Your task to perform on an android device: all mails in gmail Image 0: 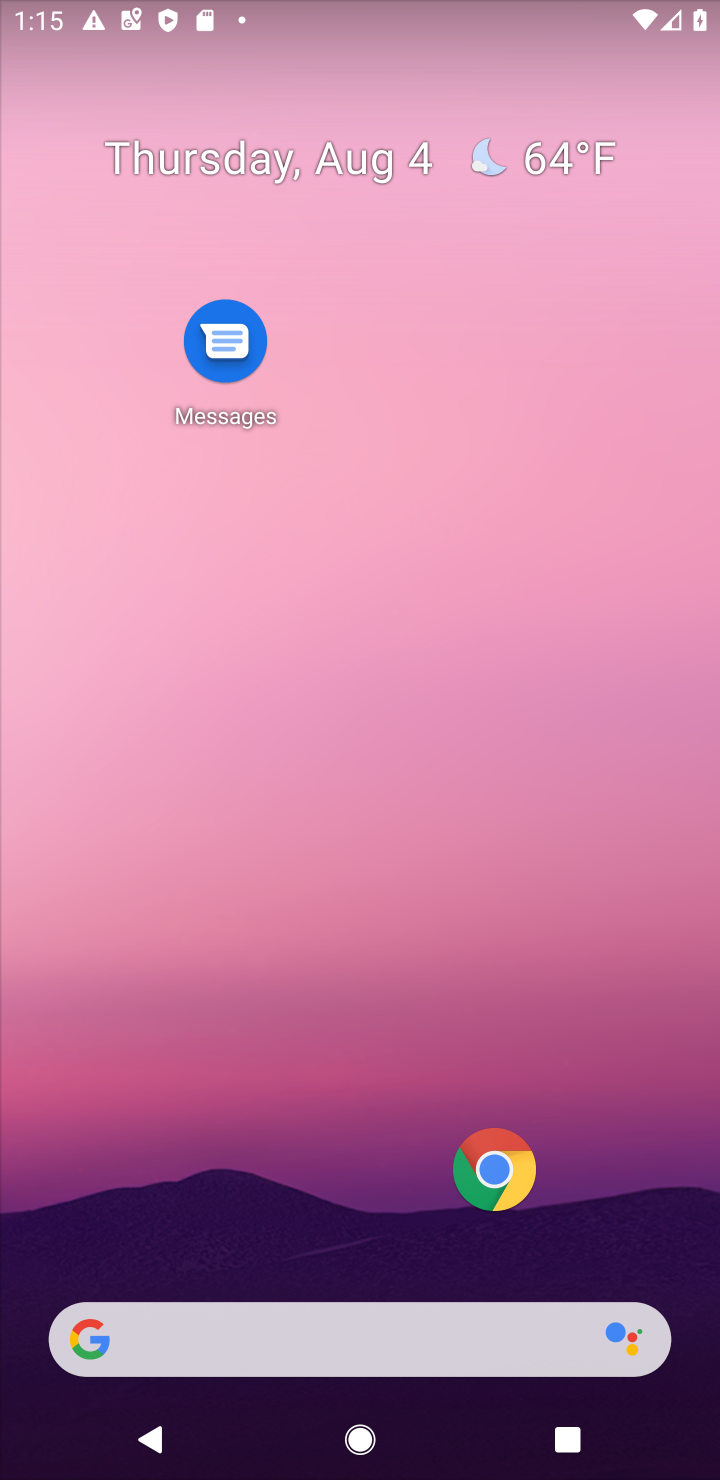
Step 0: drag from (349, 1135) to (330, 254)
Your task to perform on an android device: all mails in gmail Image 1: 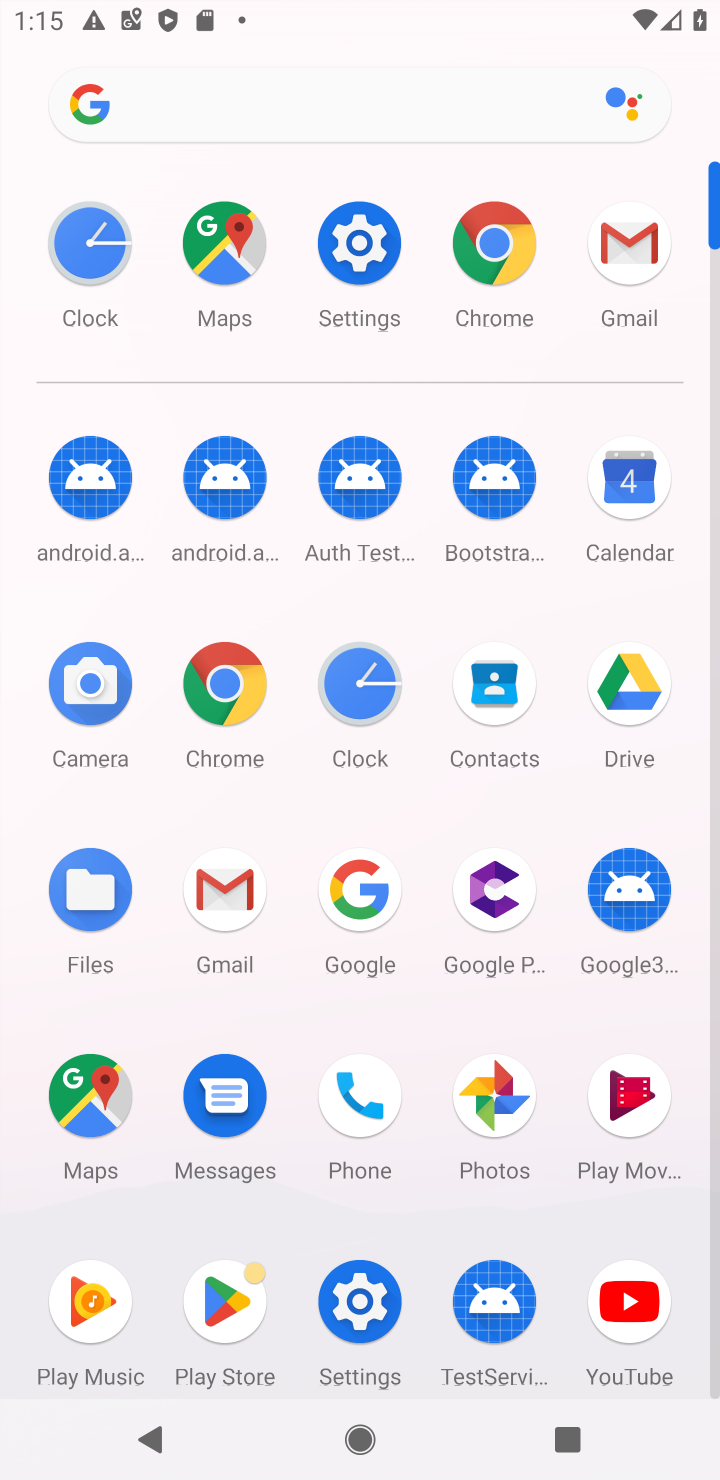
Step 1: click (618, 255)
Your task to perform on an android device: all mails in gmail Image 2: 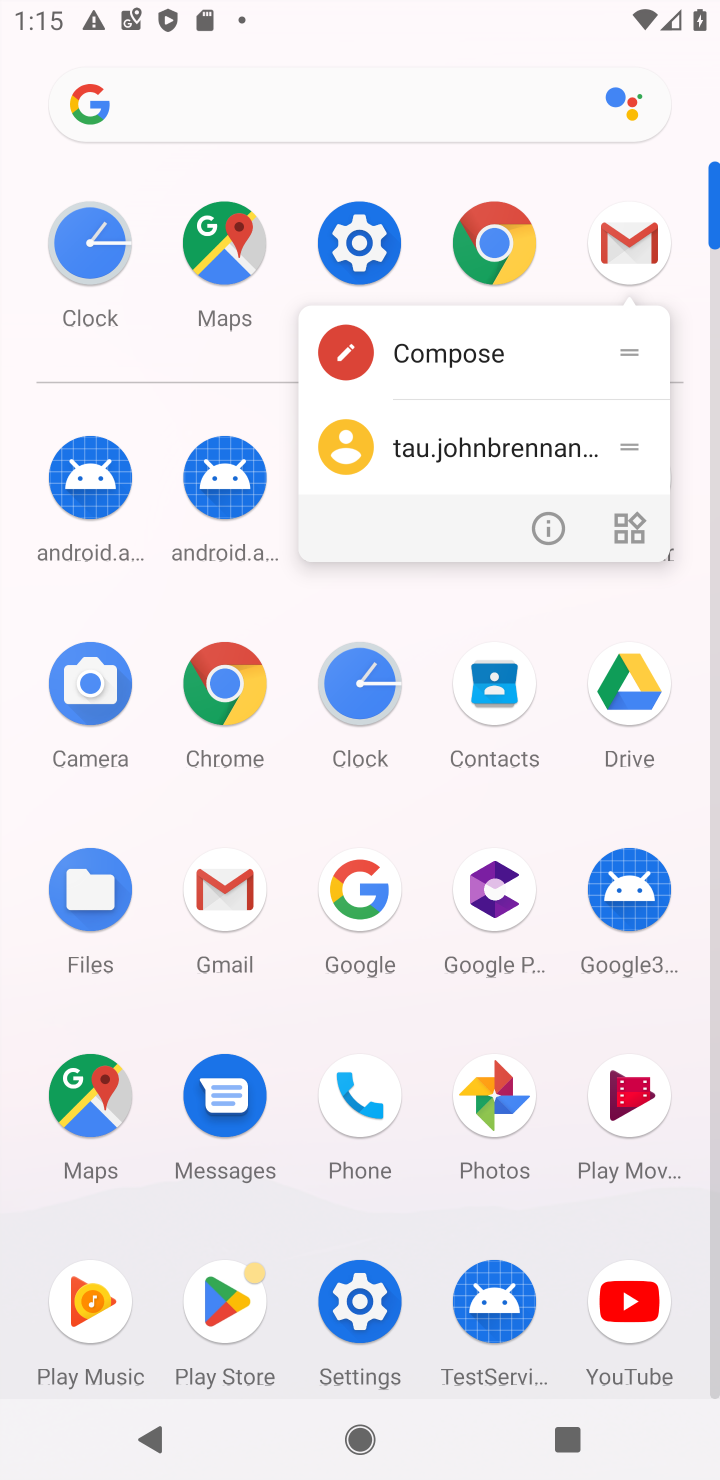
Step 2: click (608, 266)
Your task to perform on an android device: all mails in gmail Image 3: 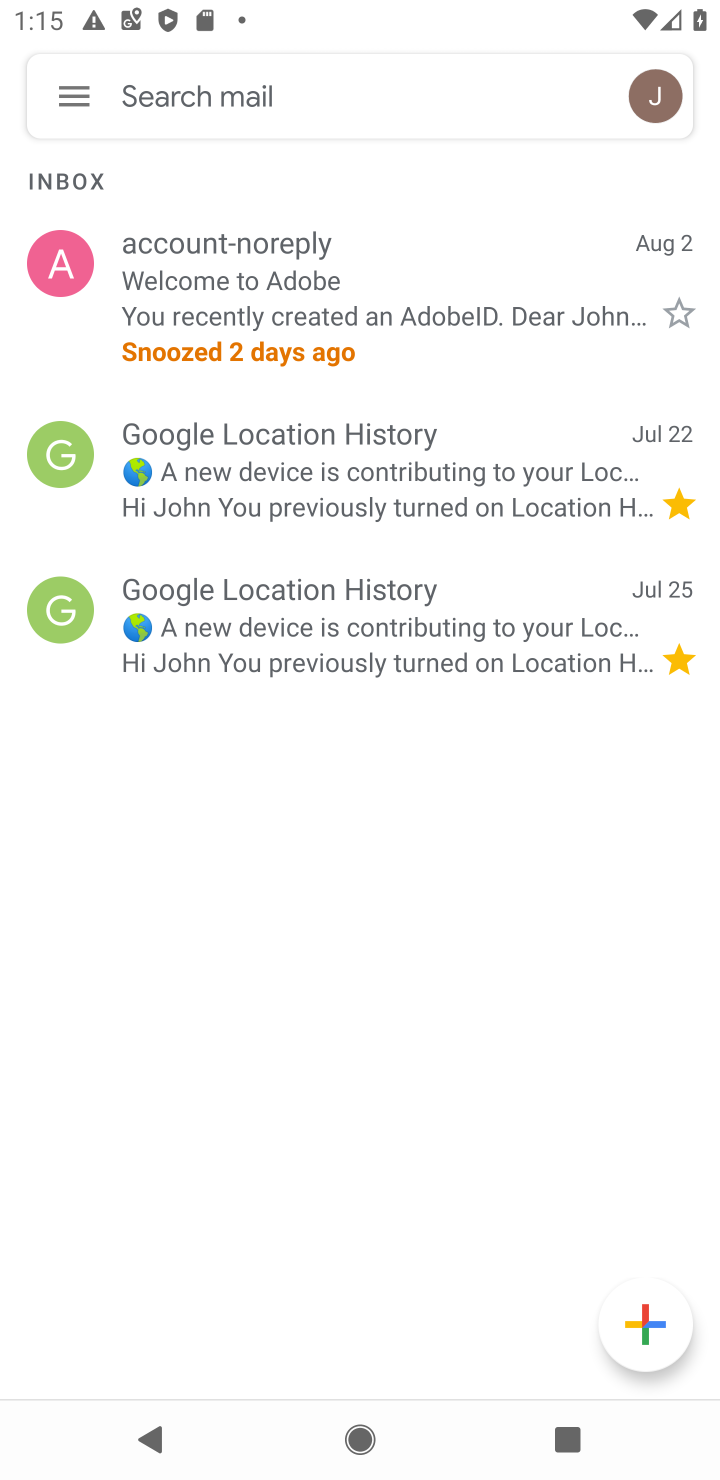
Step 3: click (610, 266)
Your task to perform on an android device: all mails in gmail Image 4: 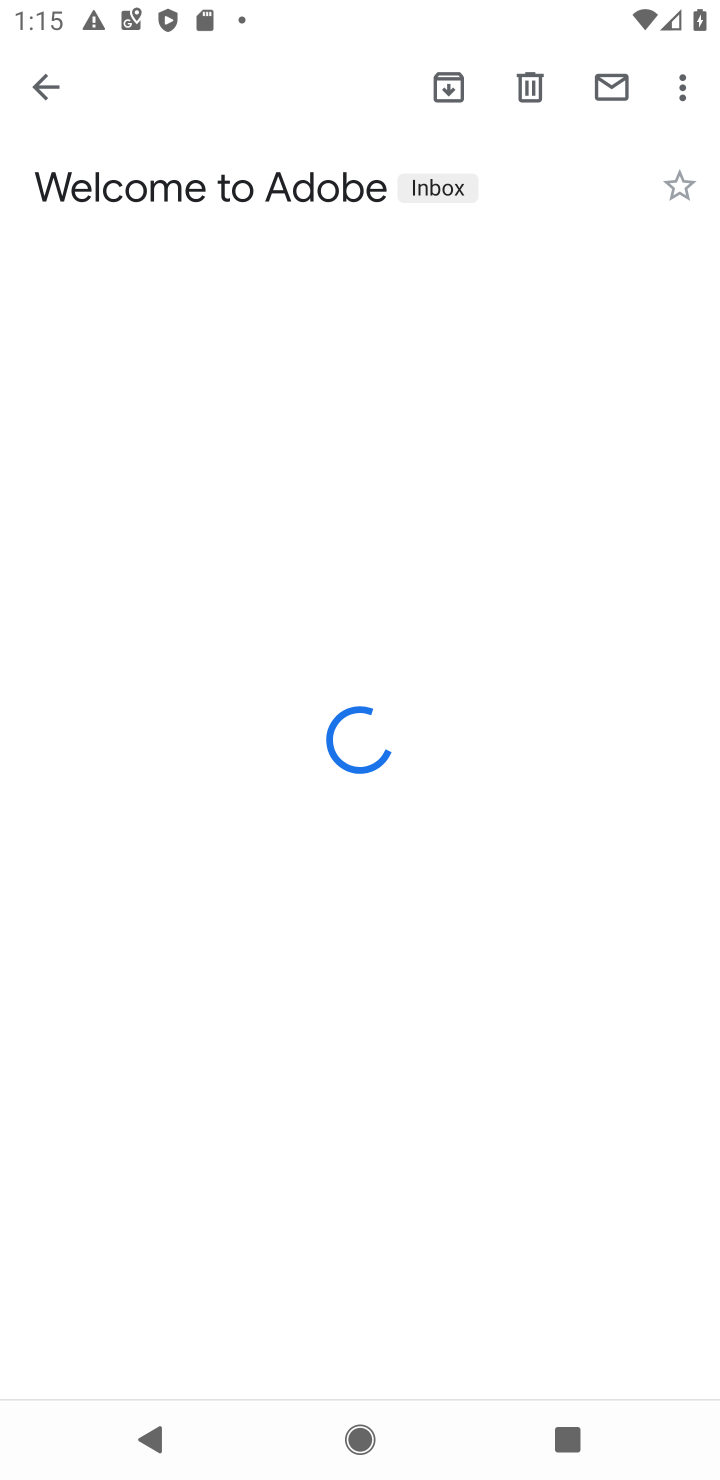
Step 4: click (35, 83)
Your task to perform on an android device: all mails in gmail Image 5: 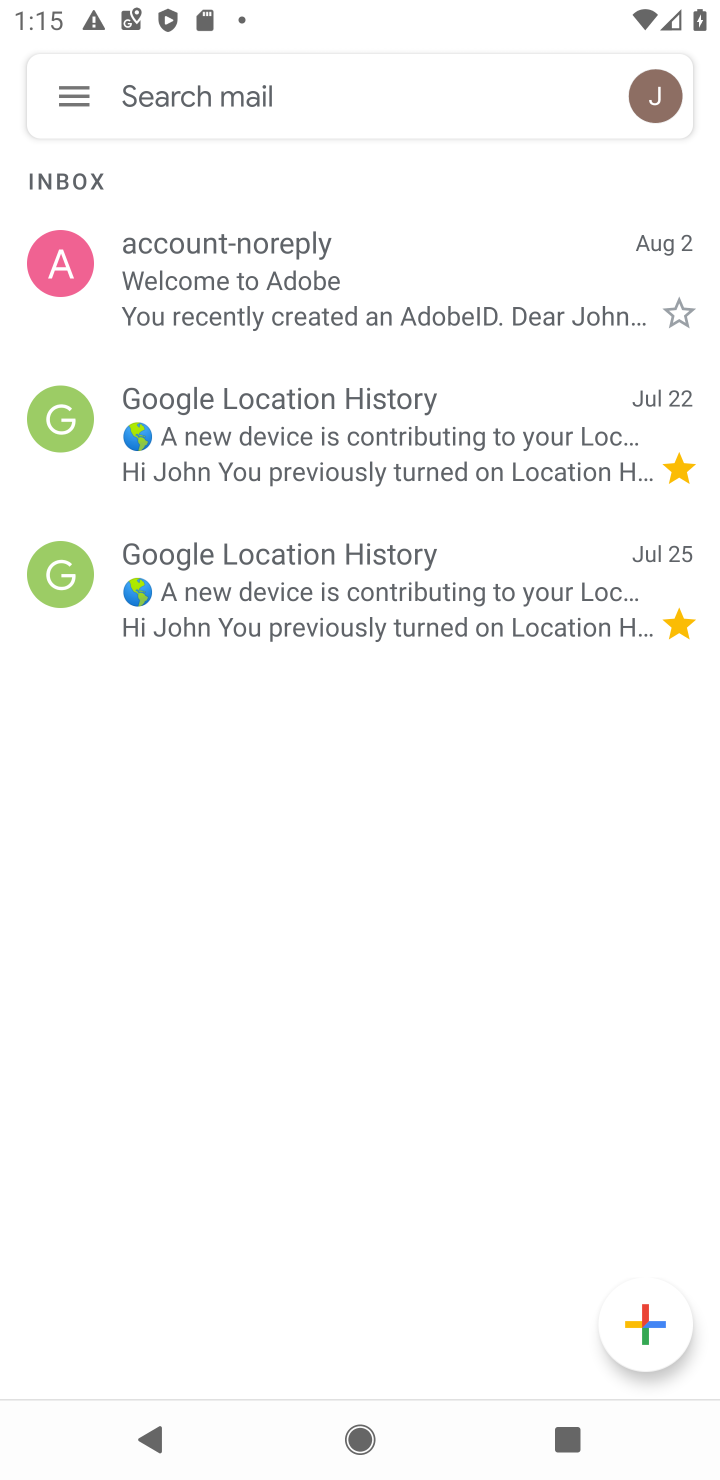
Step 5: click (51, 98)
Your task to perform on an android device: all mails in gmail Image 6: 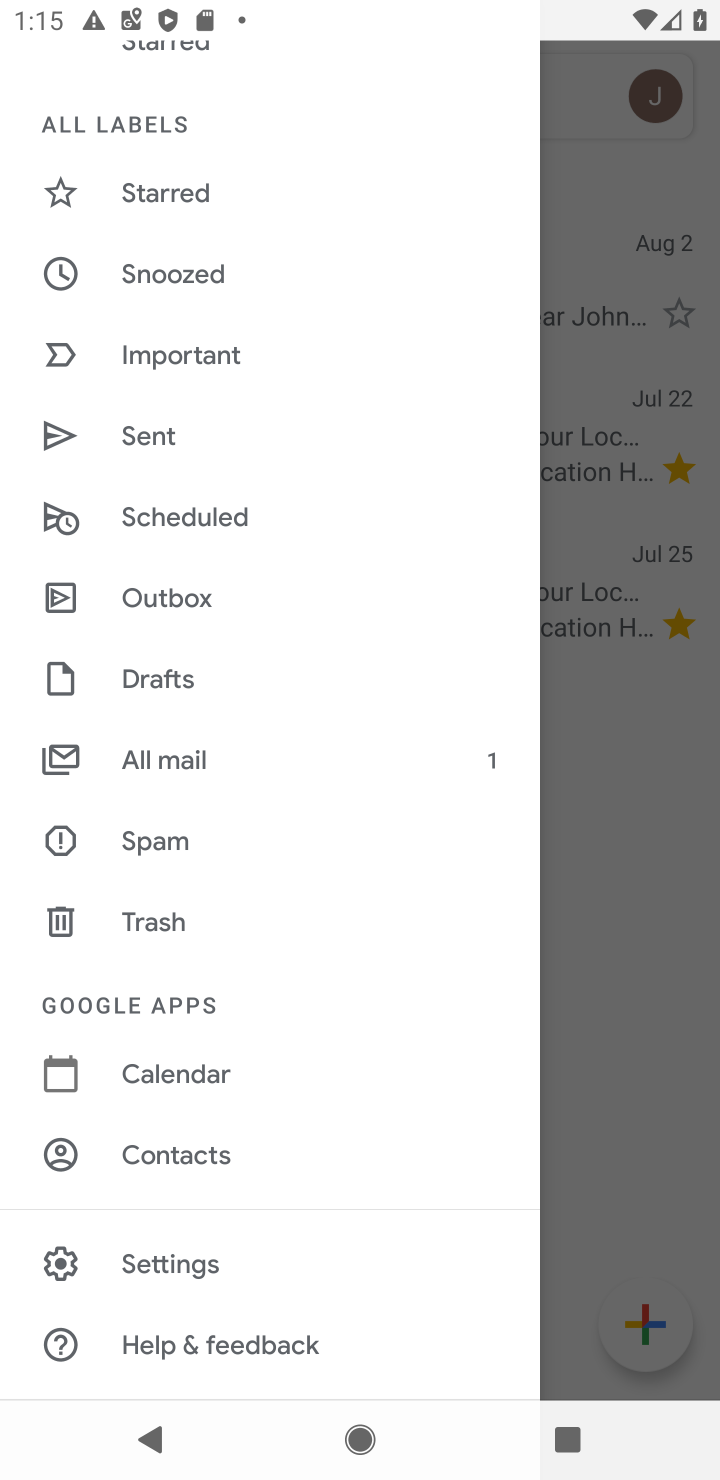
Step 6: click (156, 756)
Your task to perform on an android device: all mails in gmail Image 7: 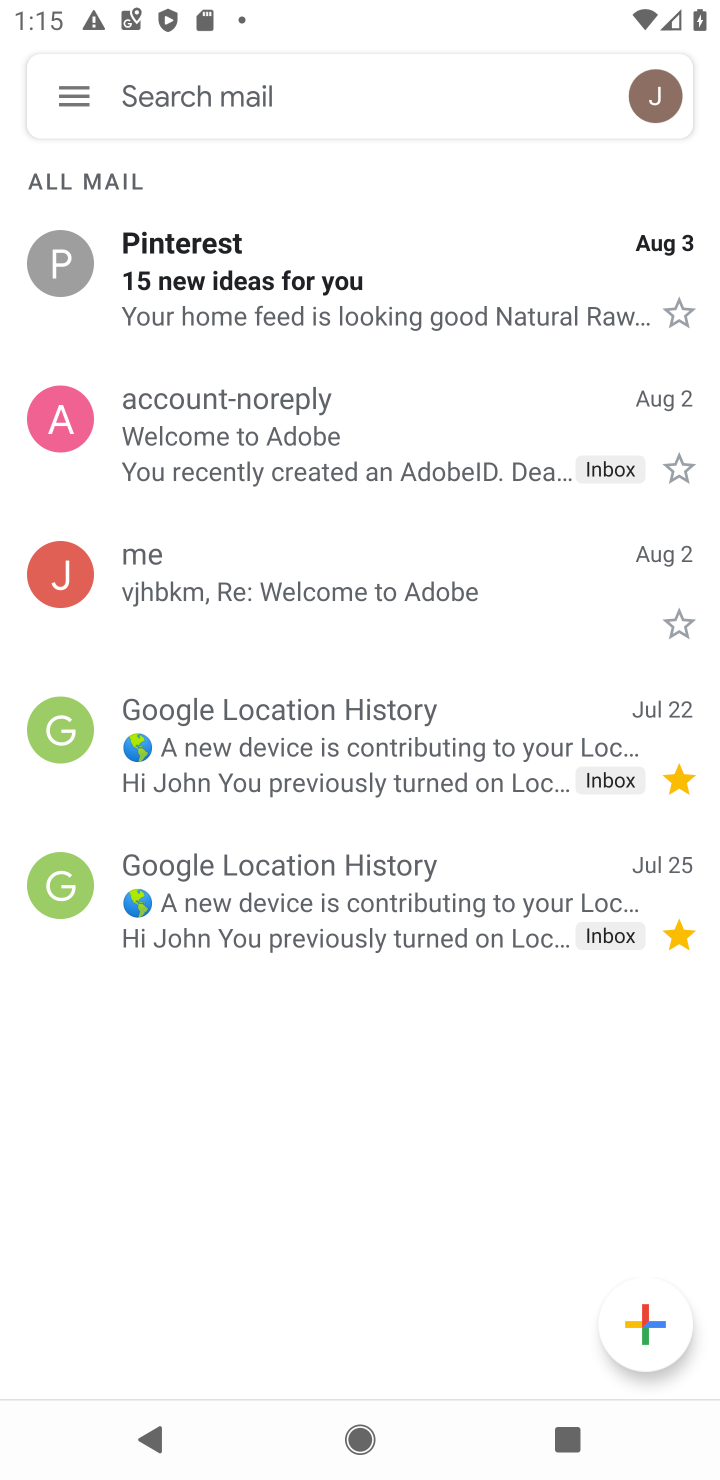
Step 7: task complete